Your task to perform on an android device: toggle notifications settings in the gmail app Image 0: 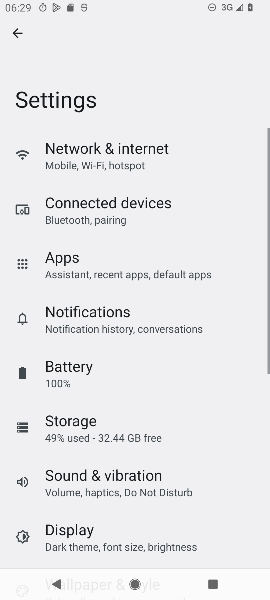
Step 0: press home button
Your task to perform on an android device: toggle notifications settings in the gmail app Image 1: 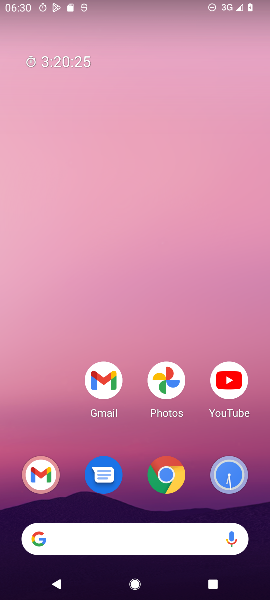
Step 1: drag from (64, 431) to (59, 216)
Your task to perform on an android device: toggle notifications settings in the gmail app Image 2: 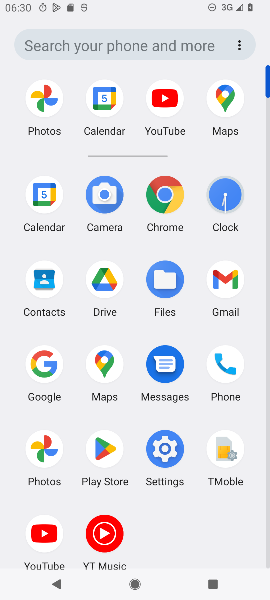
Step 2: click (237, 275)
Your task to perform on an android device: toggle notifications settings in the gmail app Image 3: 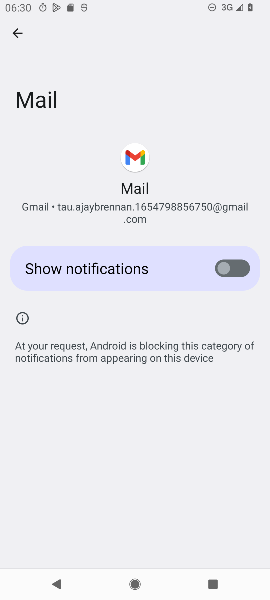
Step 3: click (224, 257)
Your task to perform on an android device: toggle notifications settings in the gmail app Image 4: 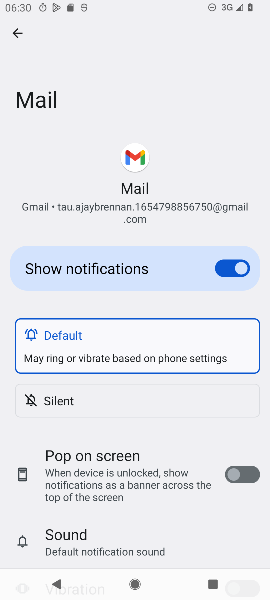
Step 4: task complete